Your task to perform on an android device: open app "Venmo" (install if not already installed) and go to login screen Image 0: 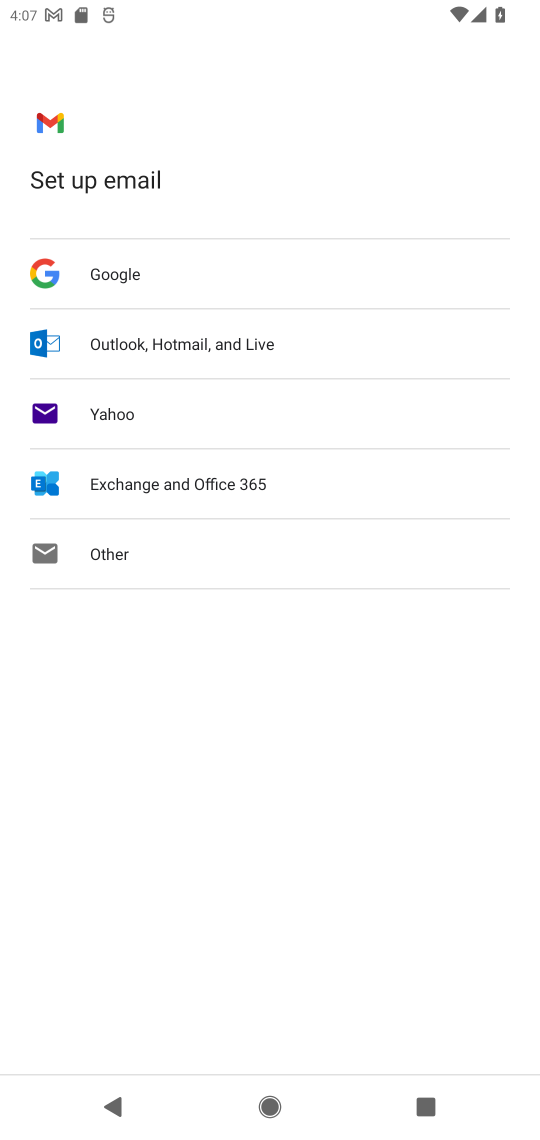
Step 0: press home button
Your task to perform on an android device: open app "Venmo" (install if not already installed) and go to login screen Image 1: 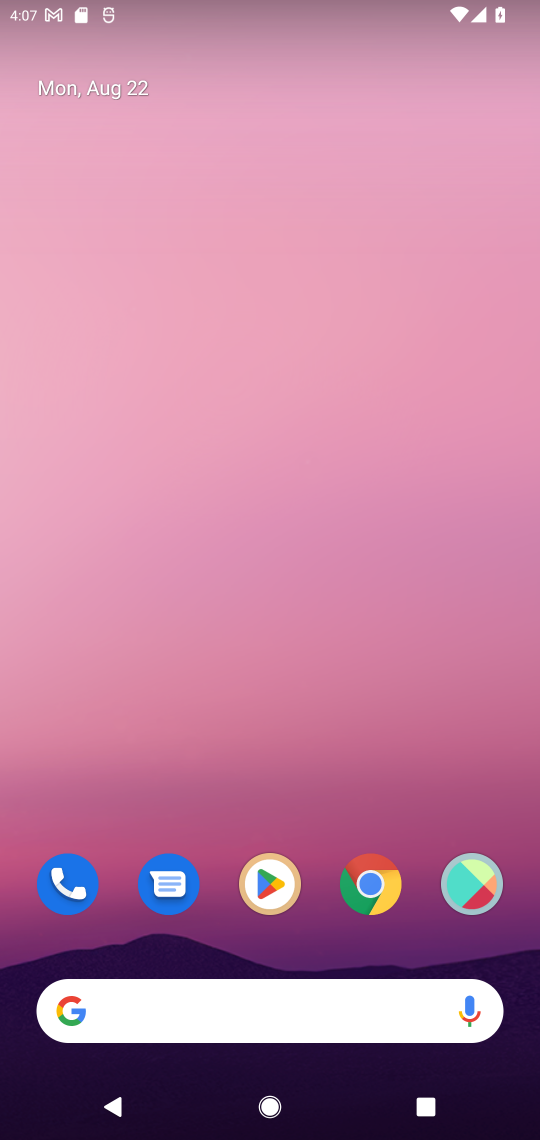
Step 1: click (261, 900)
Your task to perform on an android device: open app "Venmo" (install if not already installed) and go to login screen Image 2: 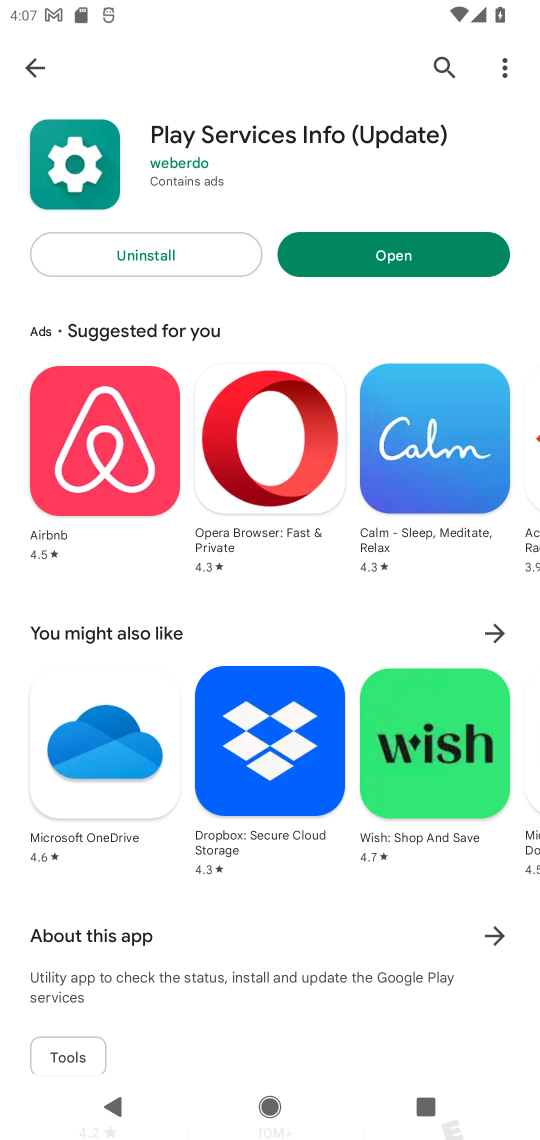
Step 2: click (30, 60)
Your task to perform on an android device: open app "Venmo" (install if not already installed) and go to login screen Image 3: 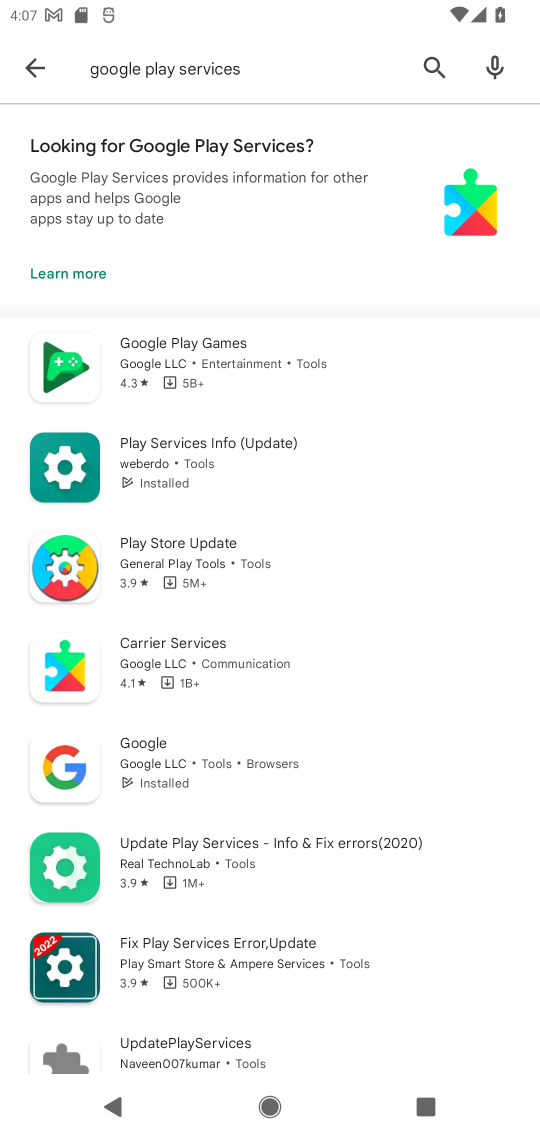
Step 3: click (232, 61)
Your task to perform on an android device: open app "Venmo" (install if not already installed) and go to login screen Image 4: 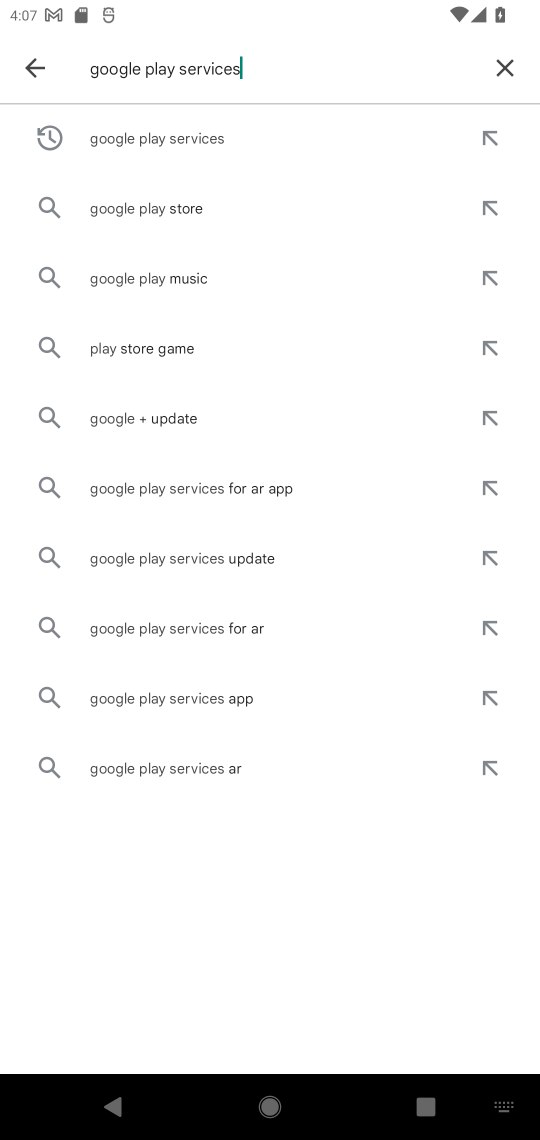
Step 4: click (500, 67)
Your task to perform on an android device: open app "Venmo" (install if not already installed) and go to login screen Image 5: 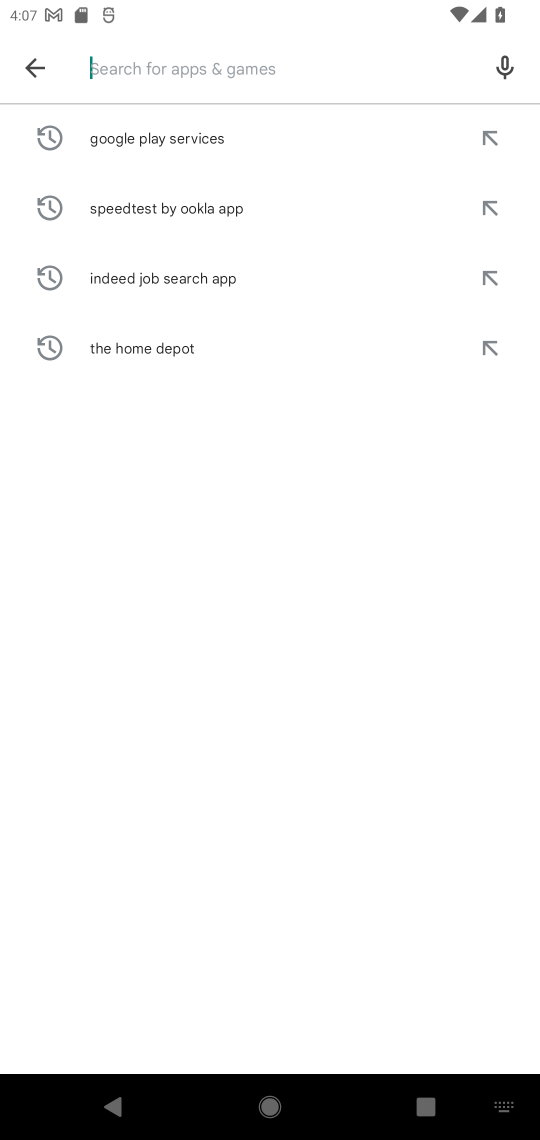
Step 5: type "venmo"
Your task to perform on an android device: open app "Venmo" (install if not already installed) and go to login screen Image 6: 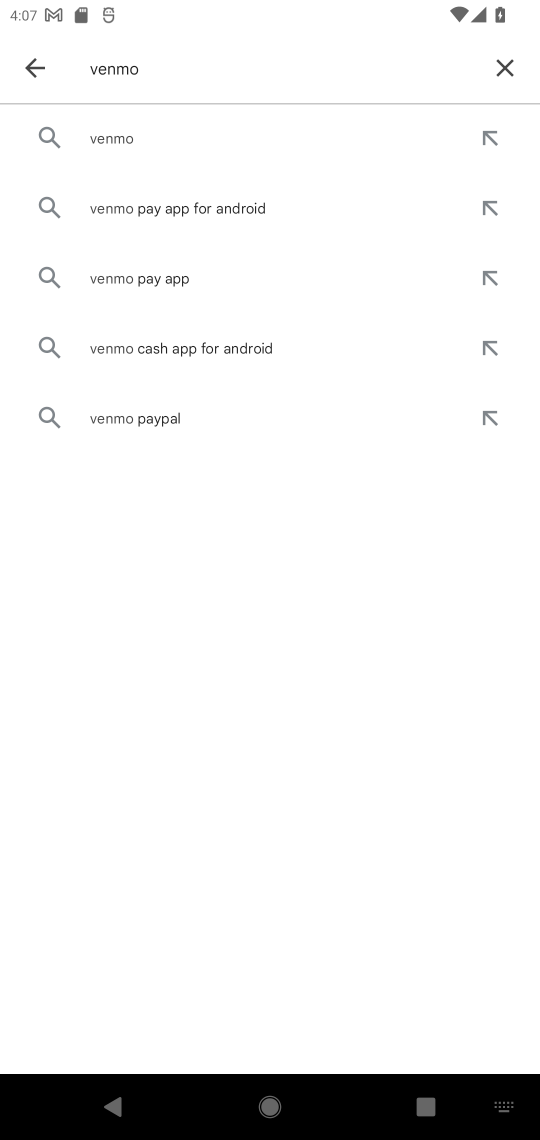
Step 6: click (133, 134)
Your task to perform on an android device: open app "Venmo" (install if not already installed) and go to login screen Image 7: 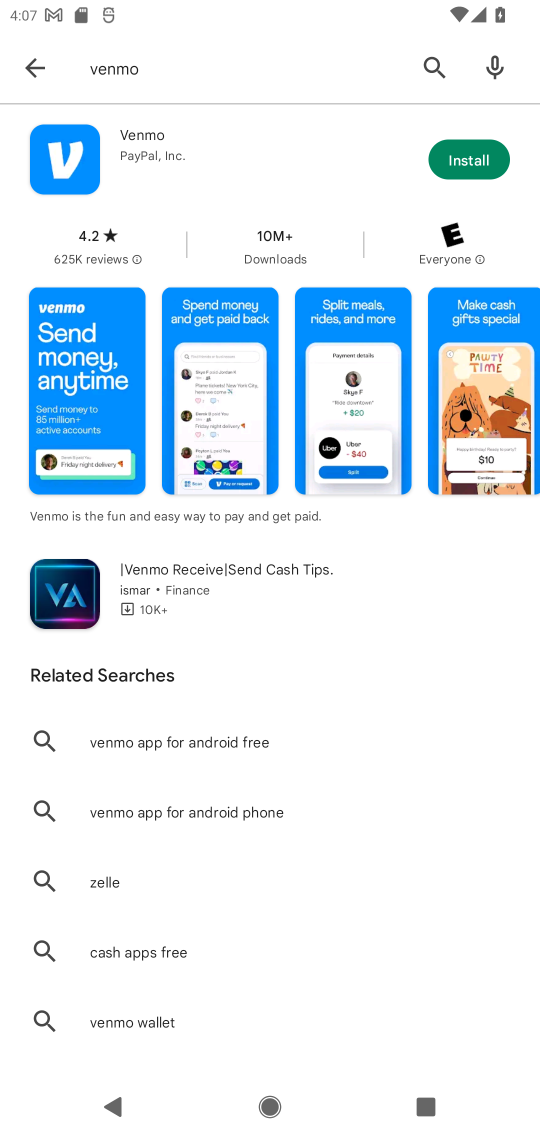
Step 7: click (466, 160)
Your task to perform on an android device: open app "Venmo" (install if not already installed) and go to login screen Image 8: 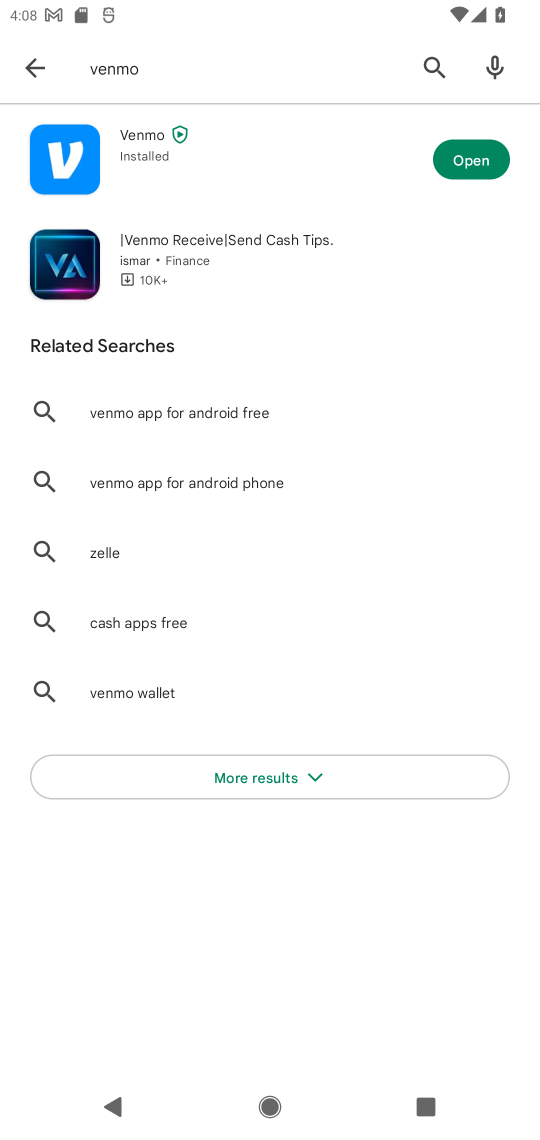
Step 8: click (473, 158)
Your task to perform on an android device: open app "Venmo" (install if not already installed) and go to login screen Image 9: 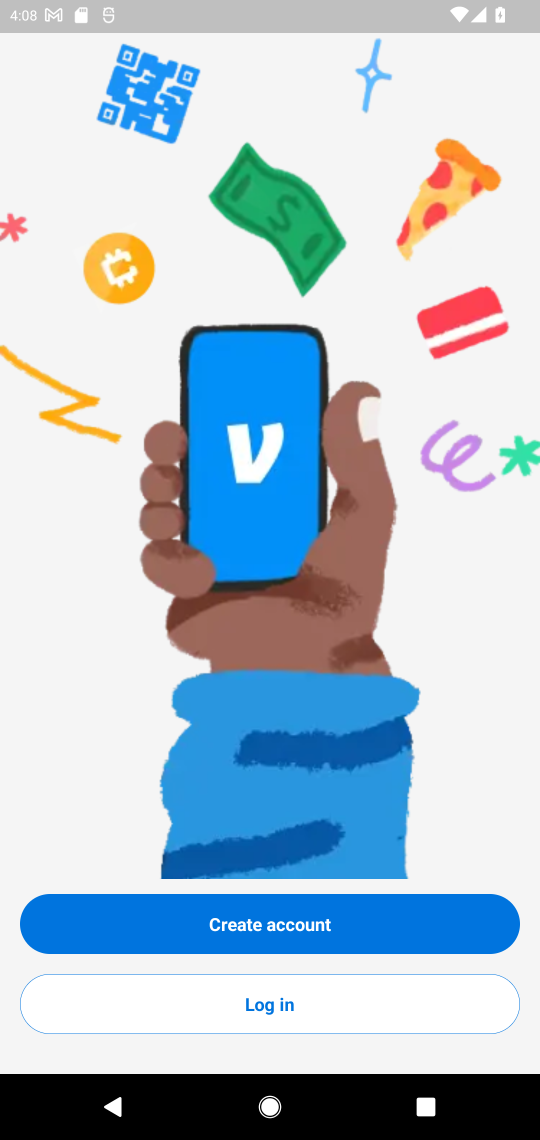
Step 9: click (304, 995)
Your task to perform on an android device: open app "Venmo" (install if not already installed) and go to login screen Image 10: 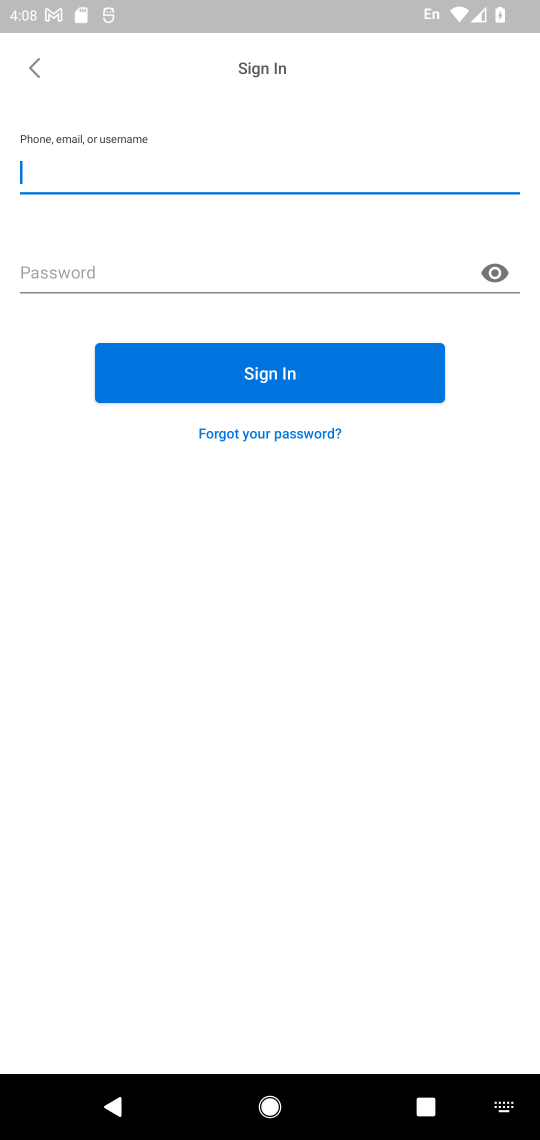
Step 10: task complete